Your task to perform on an android device: check battery use Image 0: 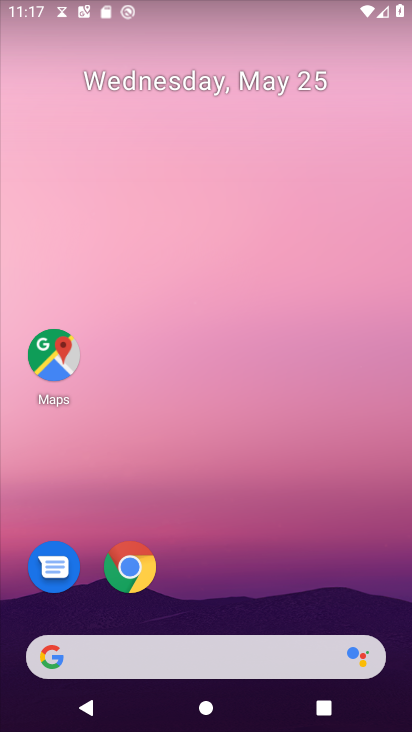
Step 0: drag from (256, 573) to (275, 72)
Your task to perform on an android device: check battery use Image 1: 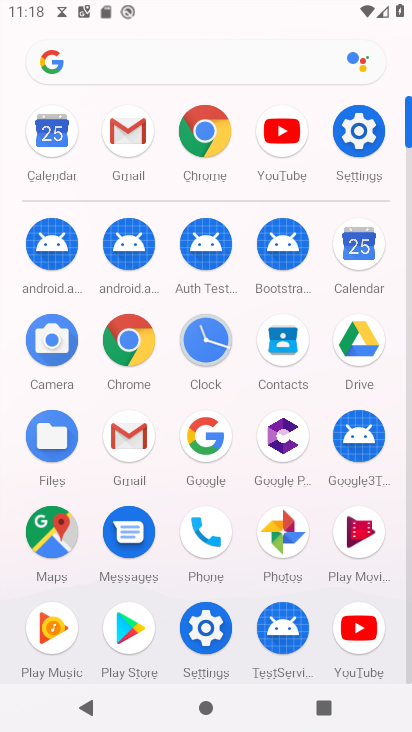
Step 1: click (360, 137)
Your task to perform on an android device: check battery use Image 2: 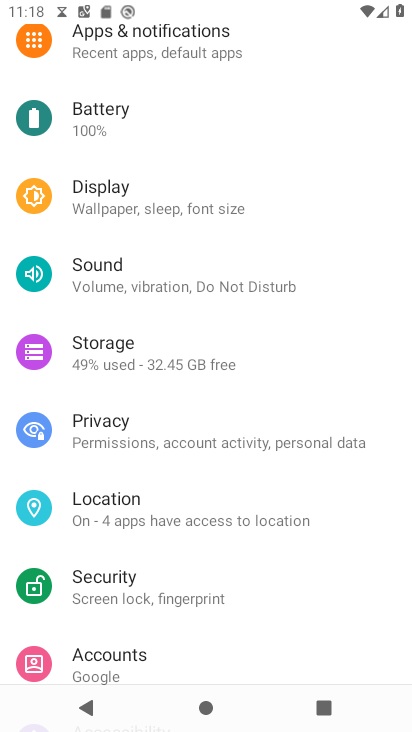
Step 2: click (107, 123)
Your task to perform on an android device: check battery use Image 3: 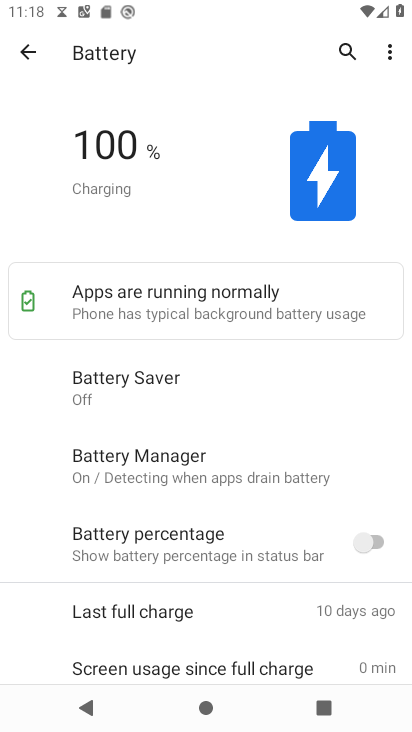
Step 3: click (396, 48)
Your task to perform on an android device: check battery use Image 4: 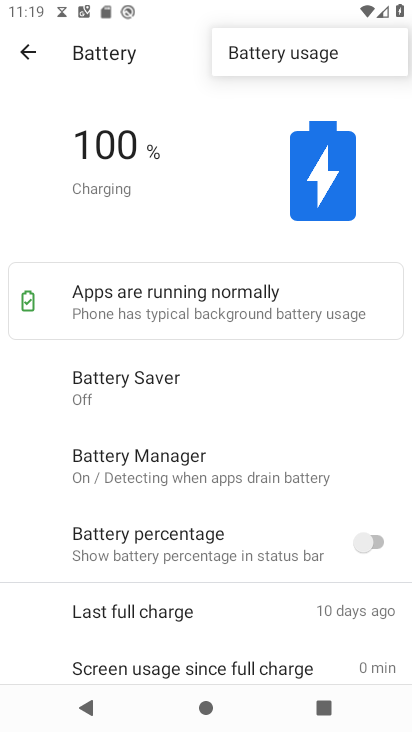
Step 4: click (316, 50)
Your task to perform on an android device: check battery use Image 5: 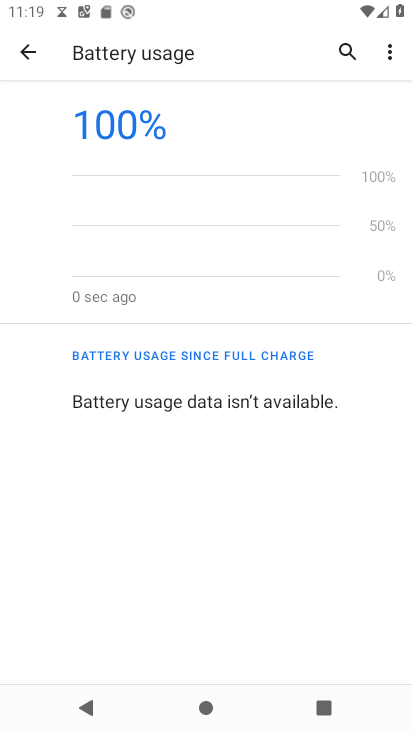
Step 5: task complete